Your task to perform on an android device: Search for Italian restaurants on Maps Image 0: 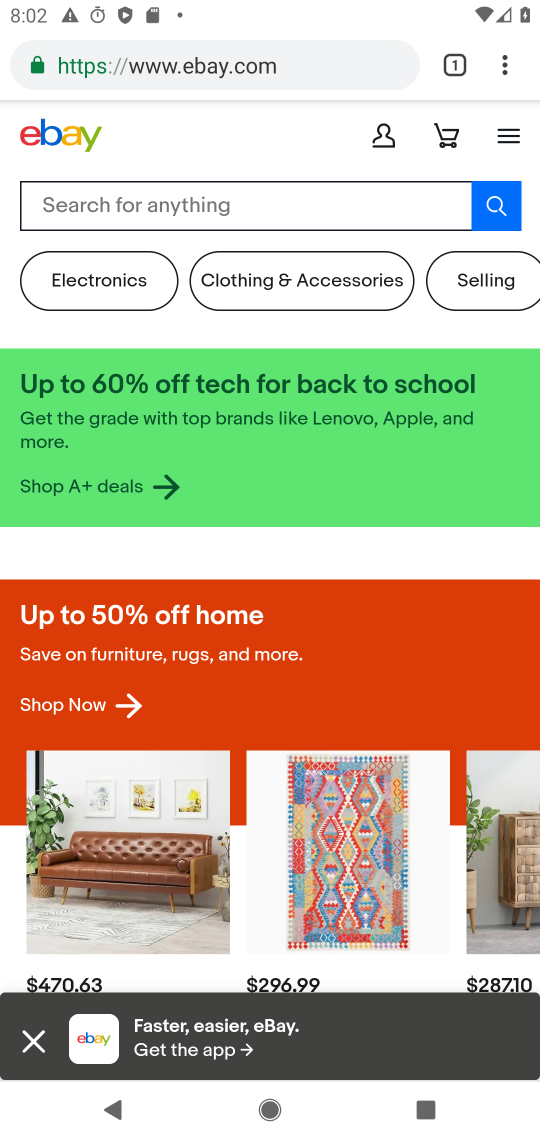
Step 0: press home button
Your task to perform on an android device: Search for Italian restaurants on Maps Image 1: 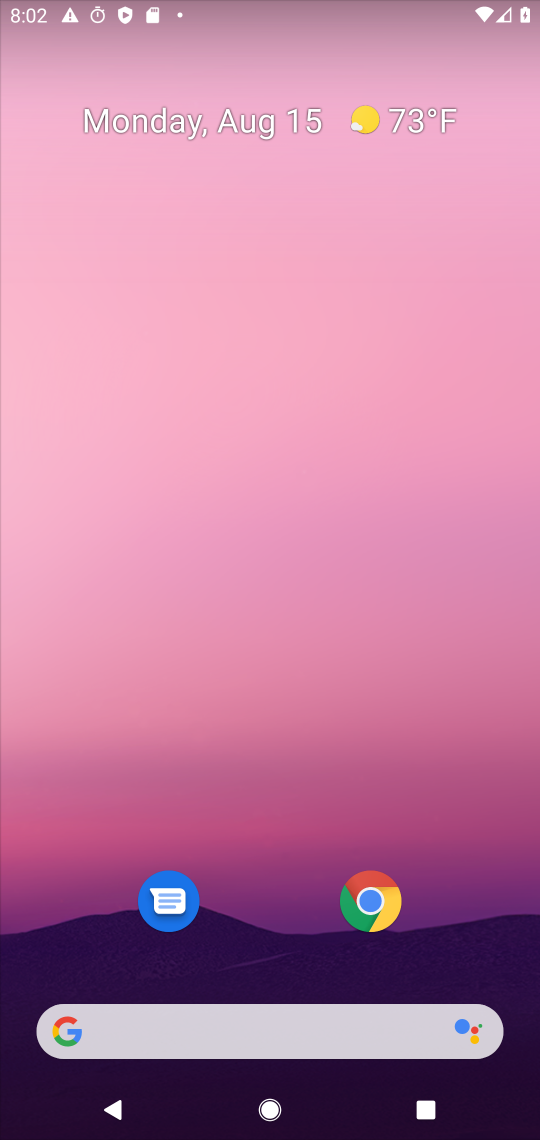
Step 1: drag from (264, 959) to (248, 217)
Your task to perform on an android device: Search for Italian restaurants on Maps Image 2: 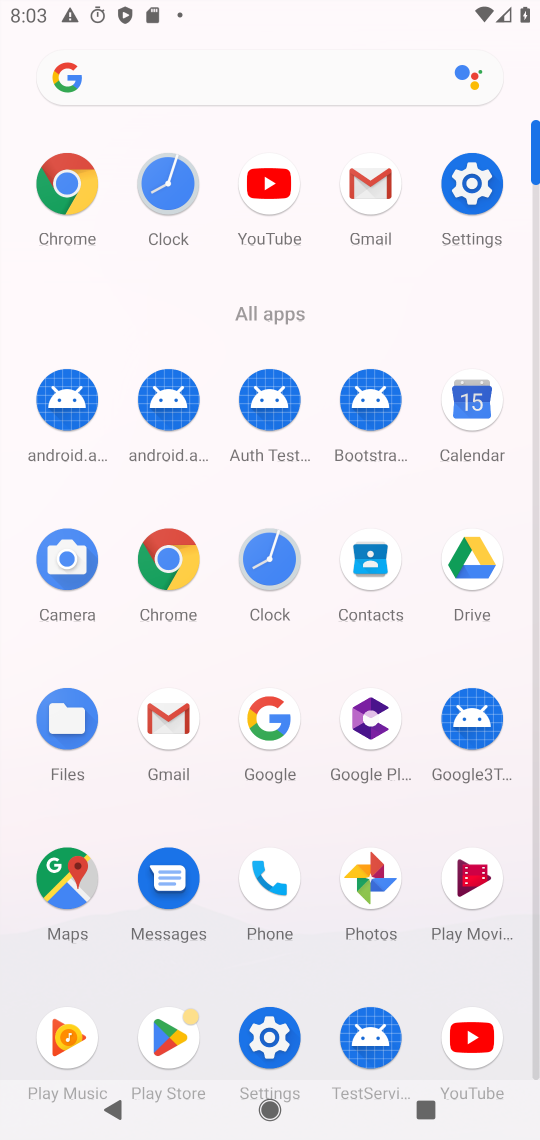
Step 2: click (67, 881)
Your task to perform on an android device: Search for Italian restaurants on Maps Image 3: 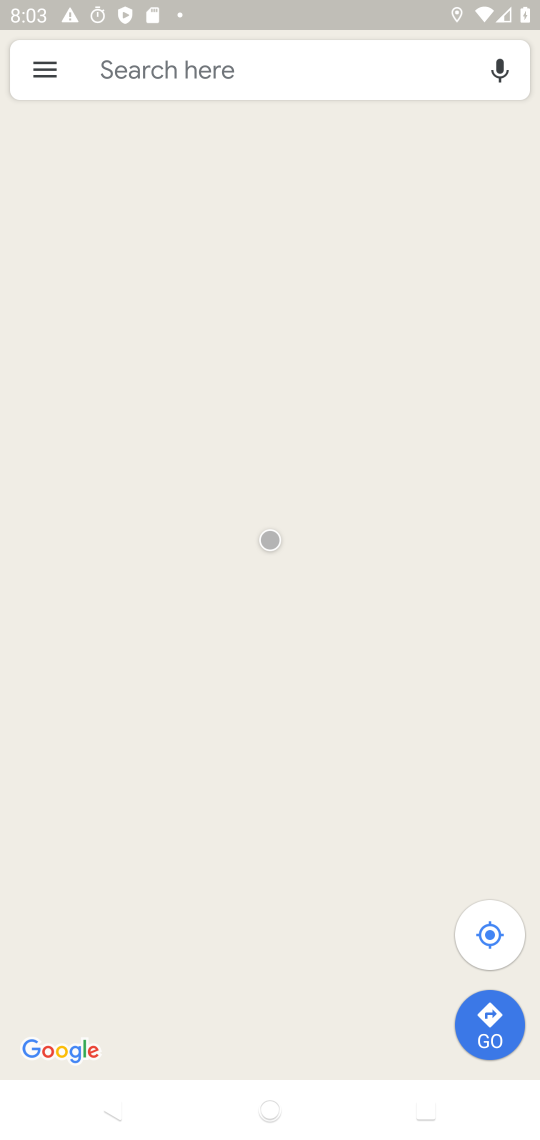
Step 3: click (220, 81)
Your task to perform on an android device: Search for Italian restaurants on Maps Image 4: 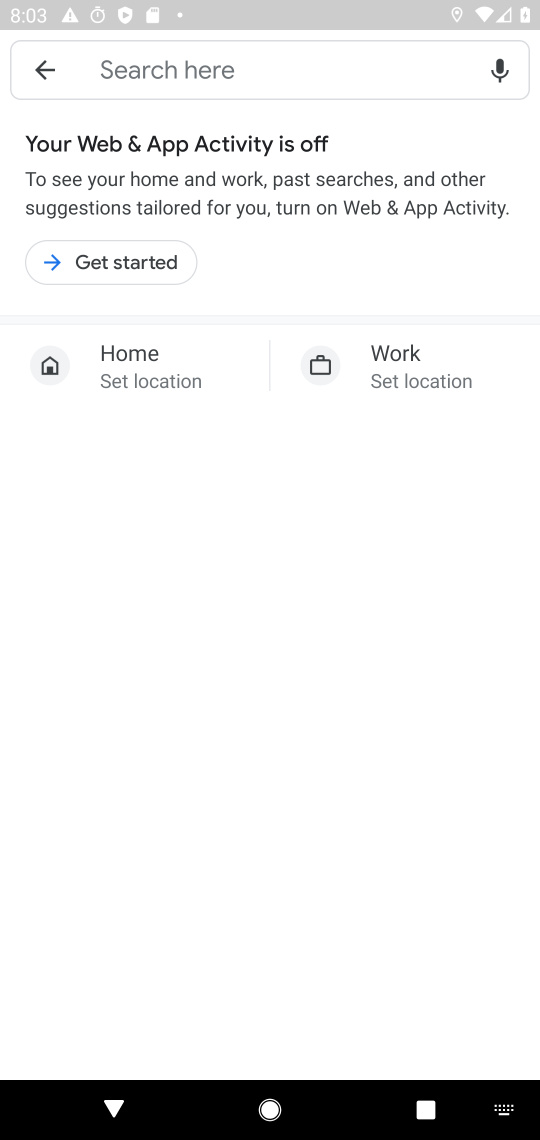
Step 4: type "italian restaurants"
Your task to perform on an android device: Search for Italian restaurants on Maps Image 5: 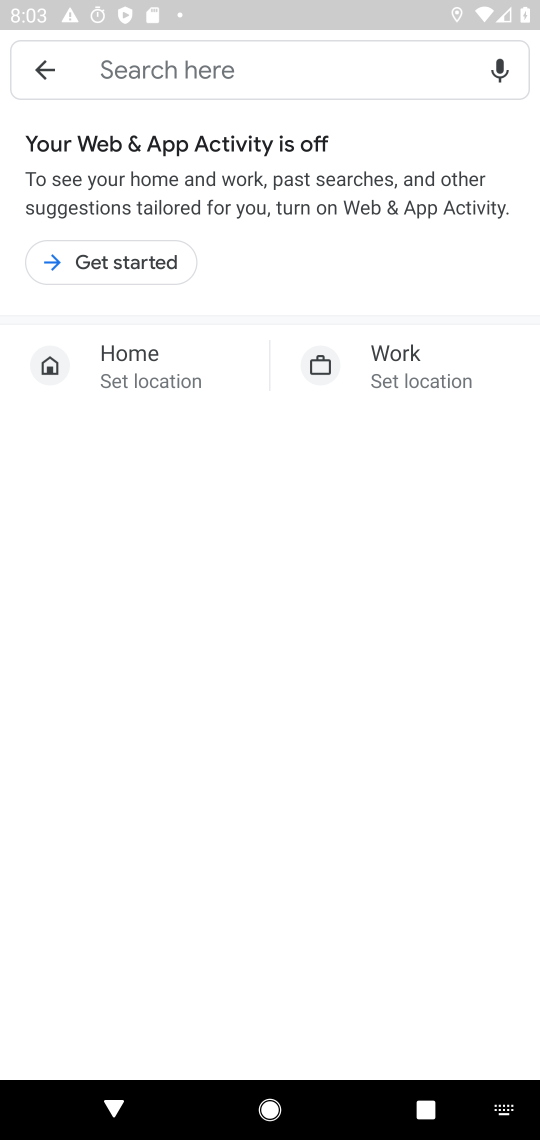
Step 5: drag from (300, 82) to (392, 79)
Your task to perform on an android device: Search for Italian restaurants on Maps Image 6: 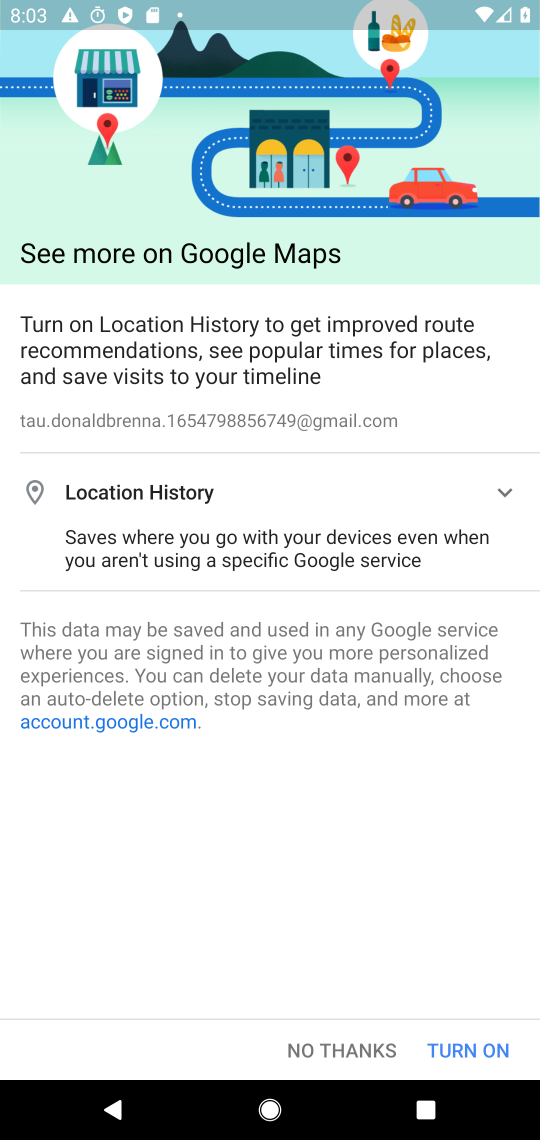
Step 6: click (472, 1046)
Your task to perform on an android device: Search for Italian restaurants on Maps Image 7: 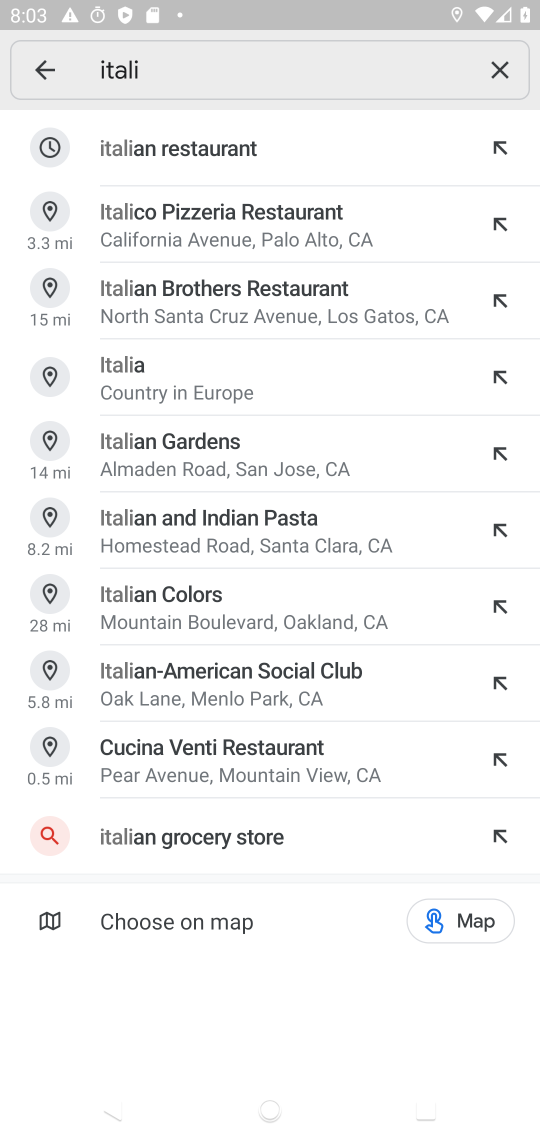
Step 7: click (198, 69)
Your task to perform on an android device: Search for Italian restaurants on Maps Image 8: 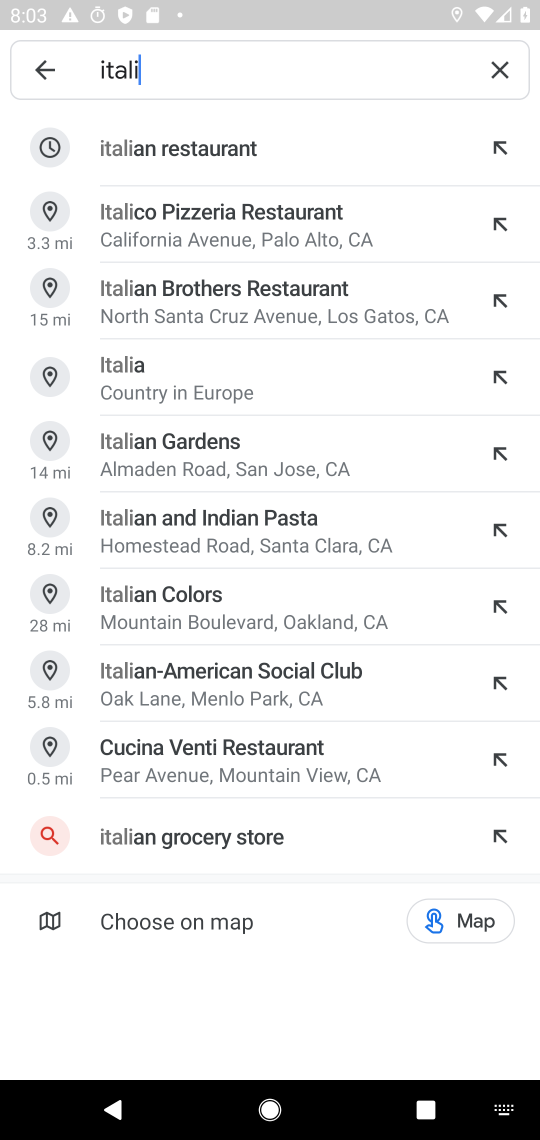
Step 8: type "an restaurants"
Your task to perform on an android device: Search for Italian restaurants on Maps Image 9: 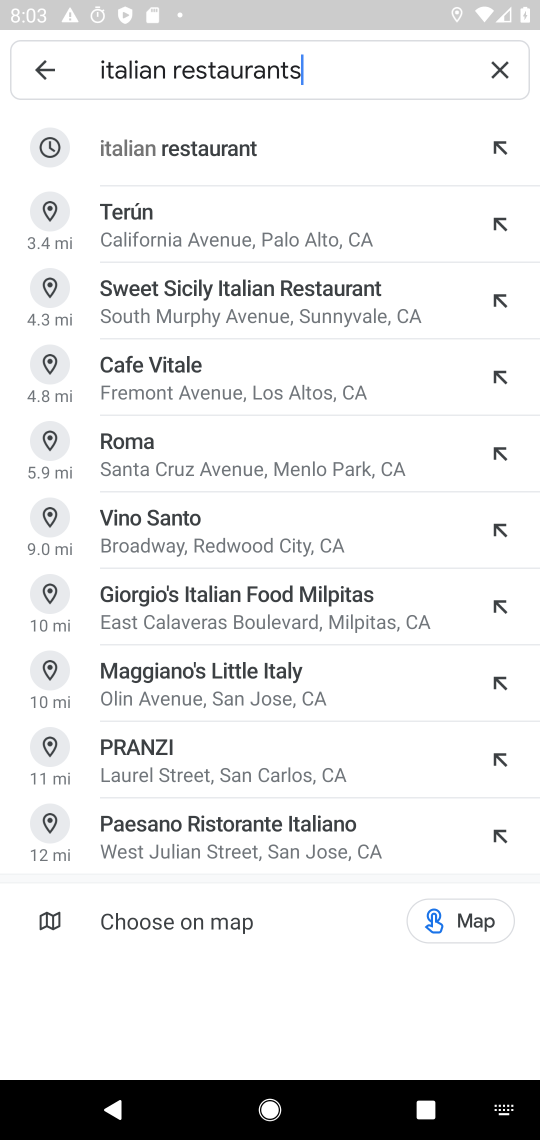
Step 9: click (257, 148)
Your task to perform on an android device: Search for Italian restaurants on Maps Image 10: 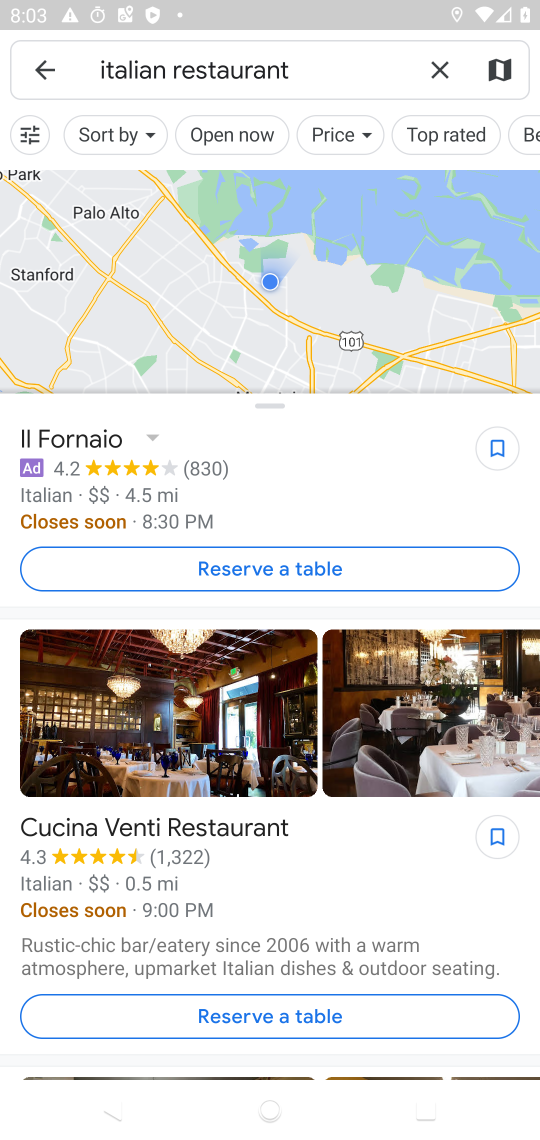
Step 10: task complete